Your task to perform on an android device: turn notification dots on Image 0: 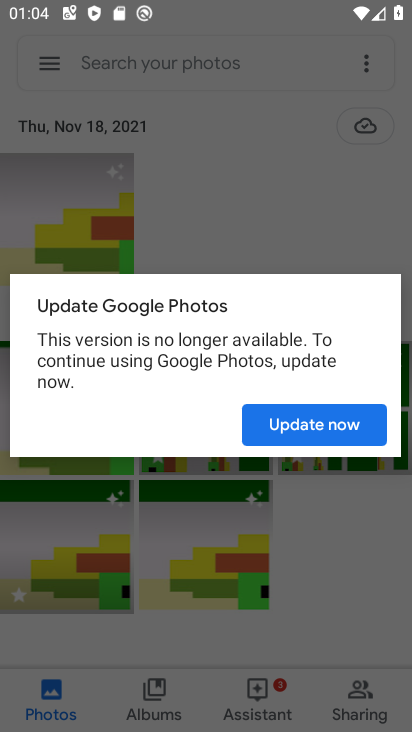
Step 0: press back button
Your task to perform on an android device: turn notification dots on Image 1: 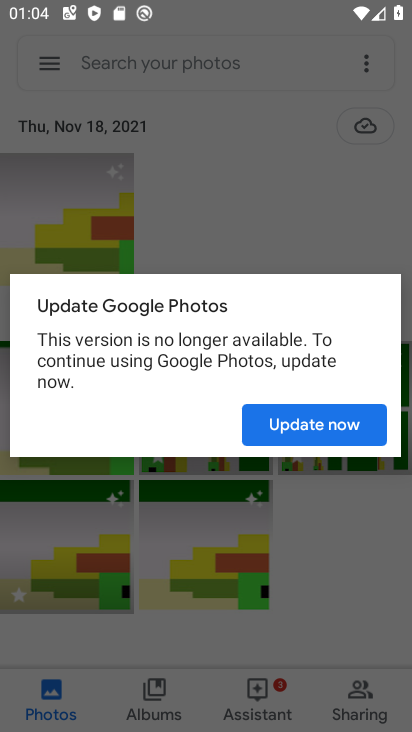
Step 1: press home button
Your task to perform on an android device: turn notification dots on Image 2: 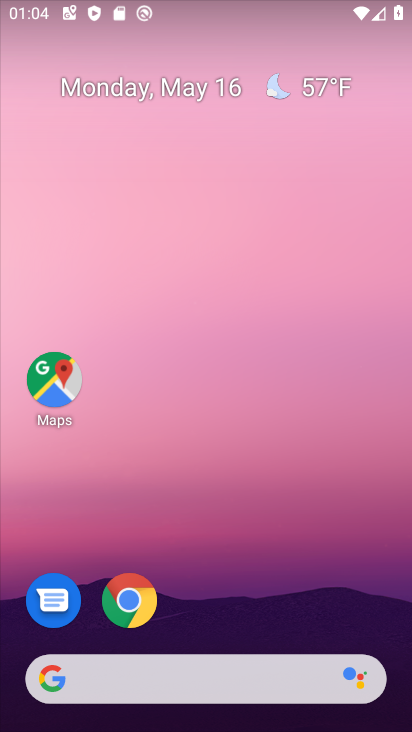
Step 2: drag from (269, 616) to (293, 177)
Your task to perform on an android device: turn notification dots on Image 3: 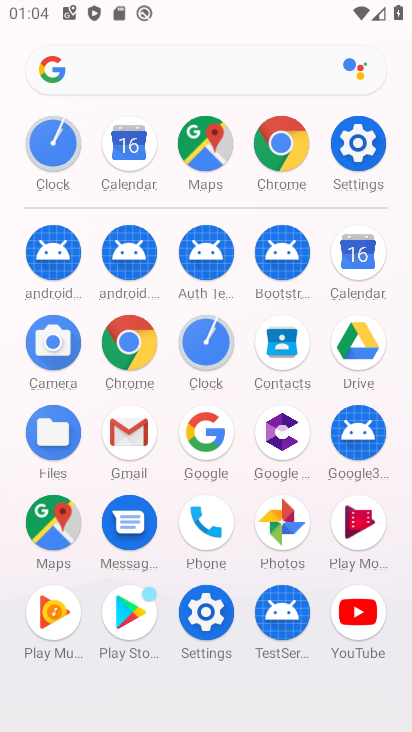
Step 3: click (350, 146)
Your task to perform on an android device: turn notification dots on Image 4: 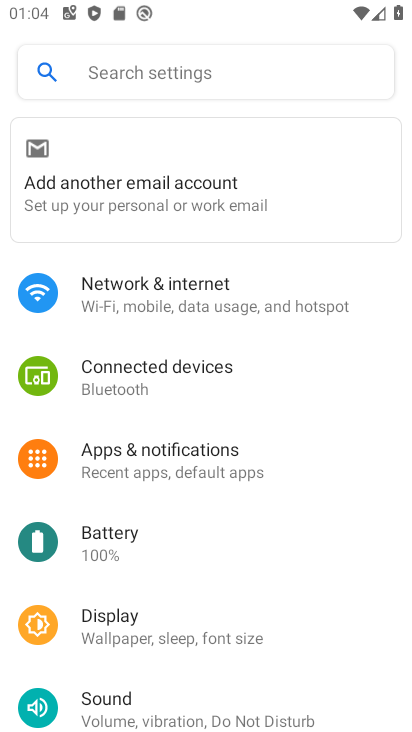
Step 4: click (139, 470)
Your task to perform on an android device: turn notification dots on Image 5: 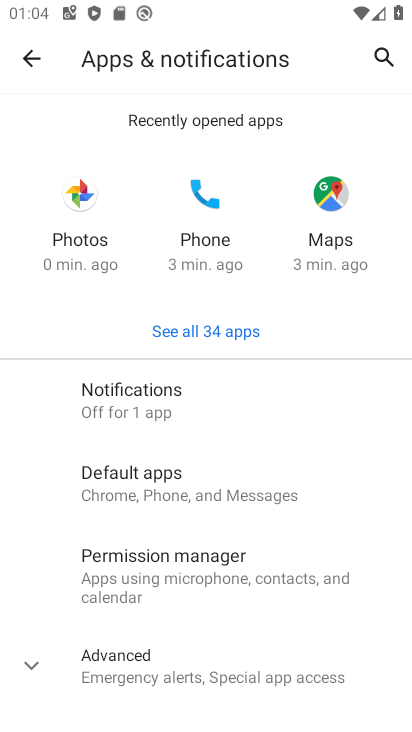
Step 5: click (148, 398)
Your task to perform on an android device: turn notification dots on Image 6: 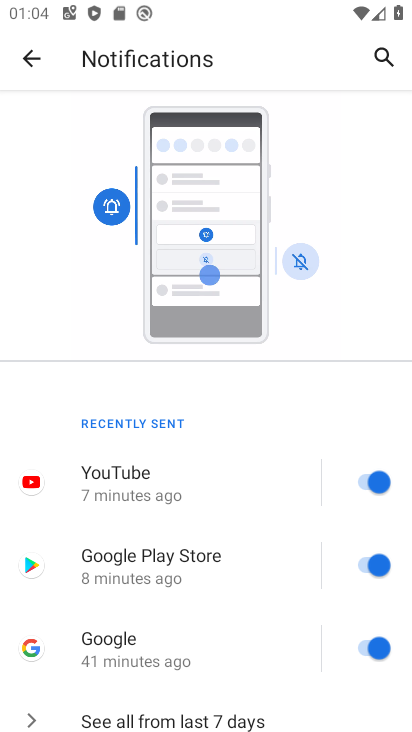
Step 6: drag from (128, 642) to (234, 138)
Your task to perform on an android device: turn notification dots on Image 7: 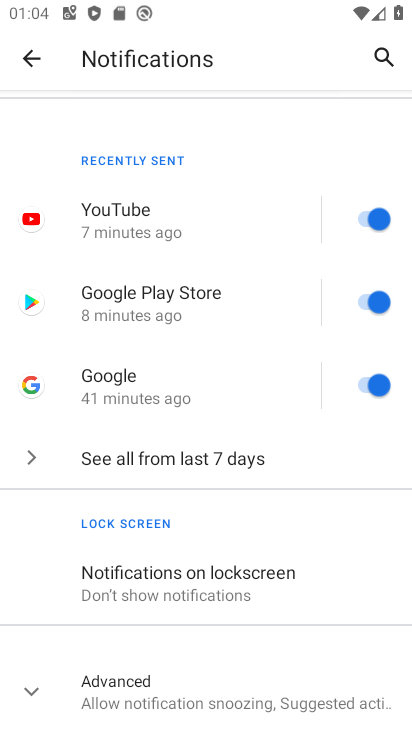
Step 7: drag from (173, 672) to (257, 127)
Your task to perform on an android device: turn notification dots on Image 8: 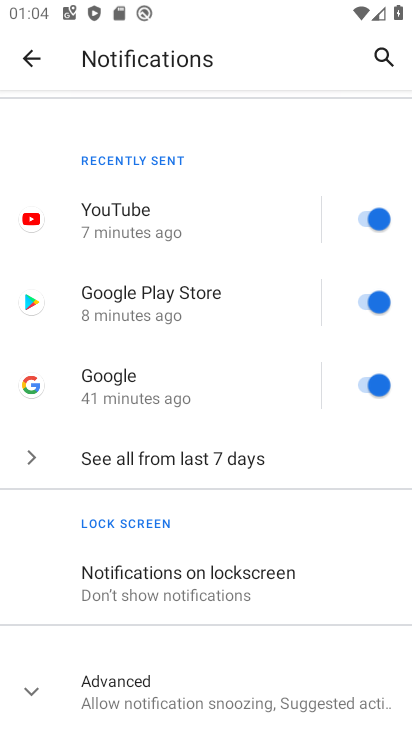
Step 8: click (195, 668)
Your task to perform on an android device: turn notification dots on Image 9: 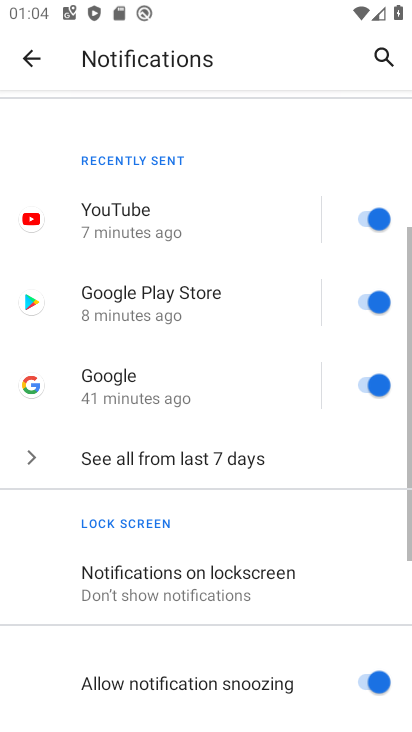
Step 9: drag from (203, 649) to (257, 225)
Your task to perform on an android device: turn notification dots on Image 10: 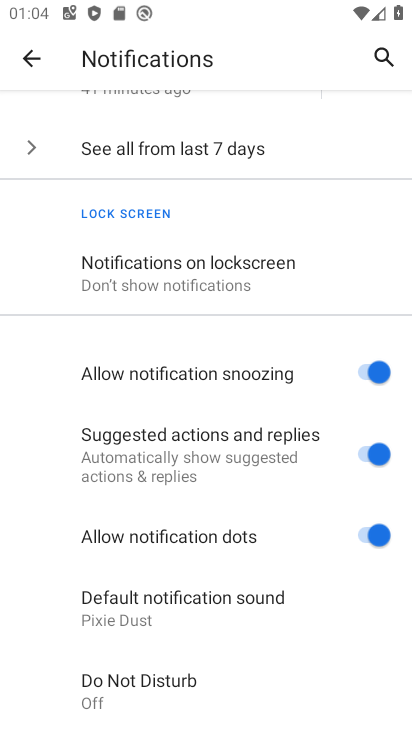
Step 10: click (386, 530)
Your task to perform on an android device: turn notification dots on Image 11: 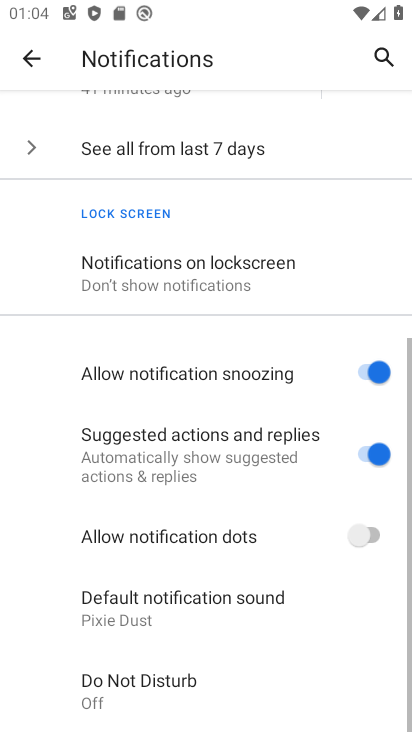
Step 11: click (378, 539)
Your task to perform on an android device: turn notification dots on Image 12: 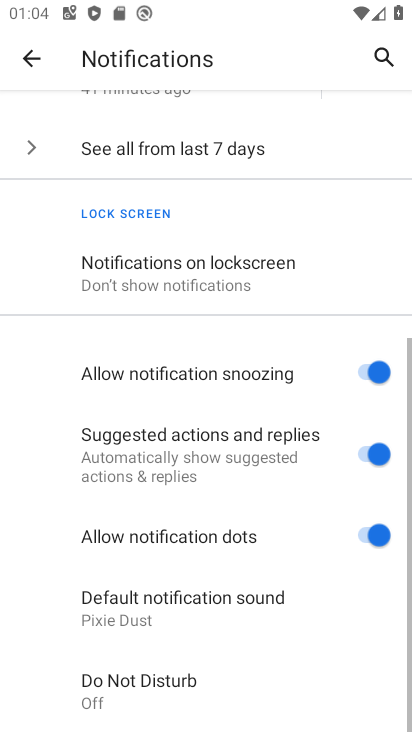
Step 12: task complete